Your task to perform on an android device: Open calendar and show me the fourth week of next month Image 0: 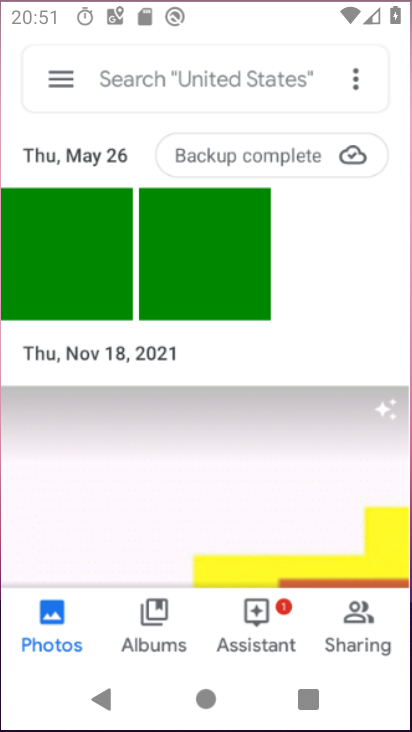
Step 0: press home button
Your task to perform on an android device: Open calendar and show me the fourth week of next month Image 1: 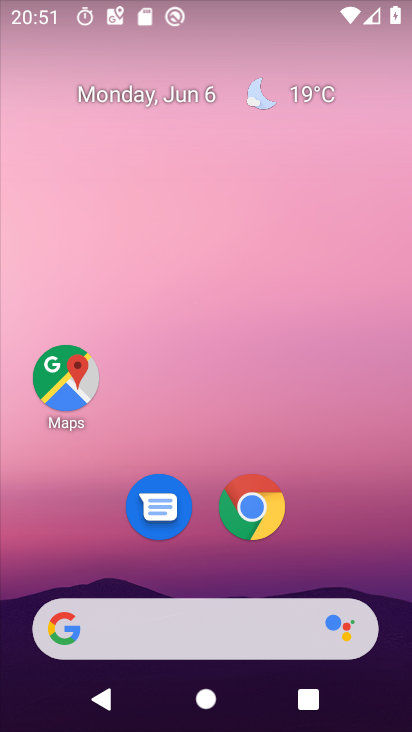
Step 1: drag from (350, 584) to (224, 3)
Your task to perform on an android device: Open calendar and show me the fourth week of next month Image 2: 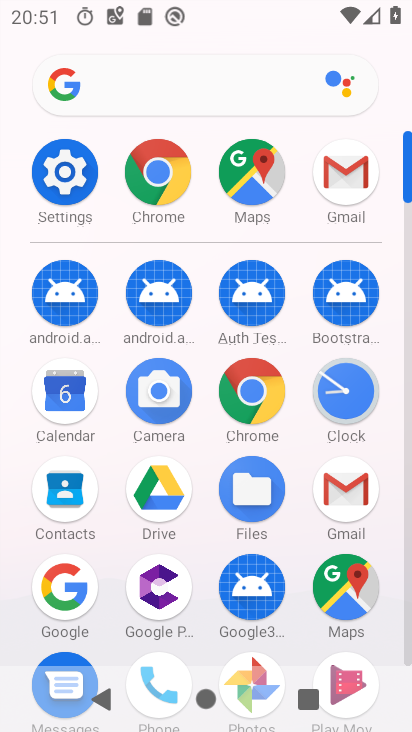
Step 2: click (55, 369)
Your task to perform on an android device: Open calendar and show me the fourth week of next month Image 3: 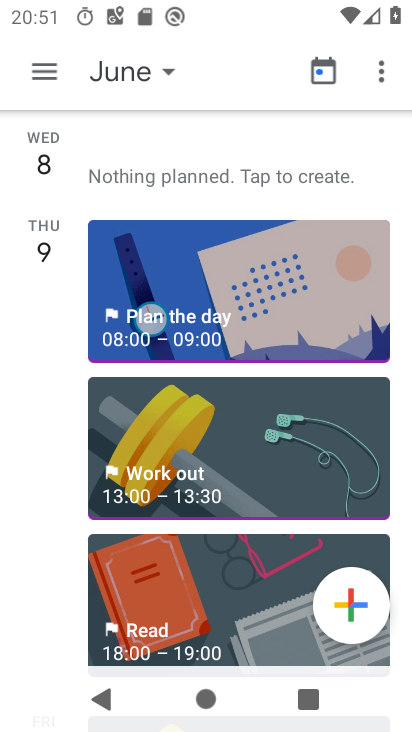
Step 3: click (99, 91)
Your task to perform on an android device: Open calendar and show me the fourth week of next month Image 4: 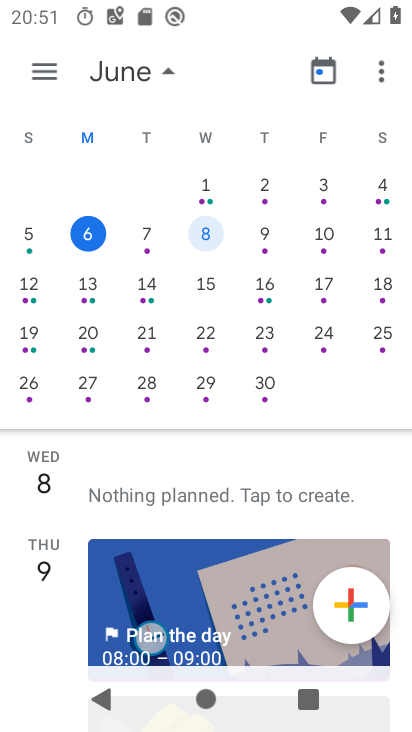
Step 4: drag from (382, 318) to (77, 464)
Your task to perform on an android device: Open calendar and show me the fourth week of next month Image 5: 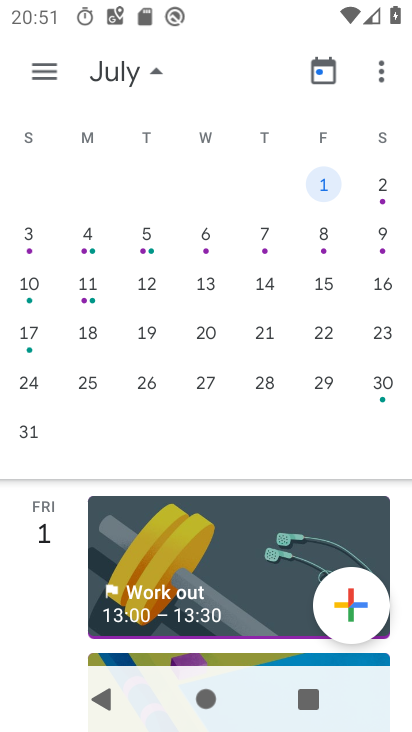
Step 5: click (319, 339)
Your task to perform on an android device: Open calendar and show me the fourth week of next month Image 6: 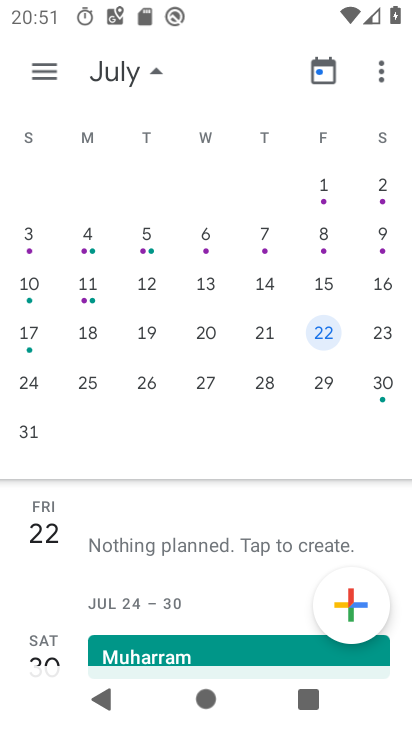
Step 6: task complete